Your task to perform on an android device: Open the stopwatch Image 0: 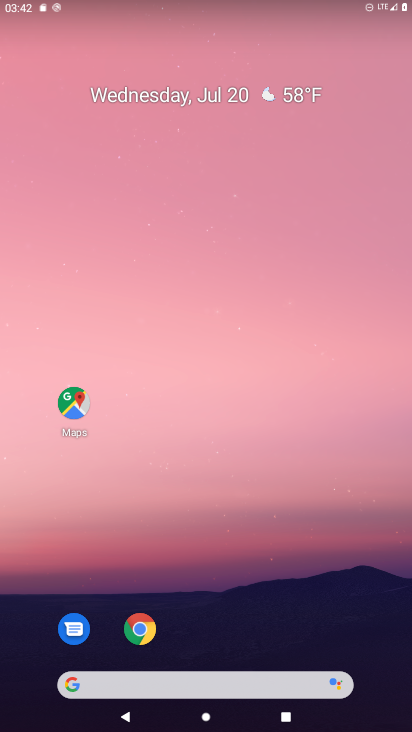
Step 0: drag from (220, 645) to (286, 42)
Your task to perform on an android device: Open the stopwatch Image 1: 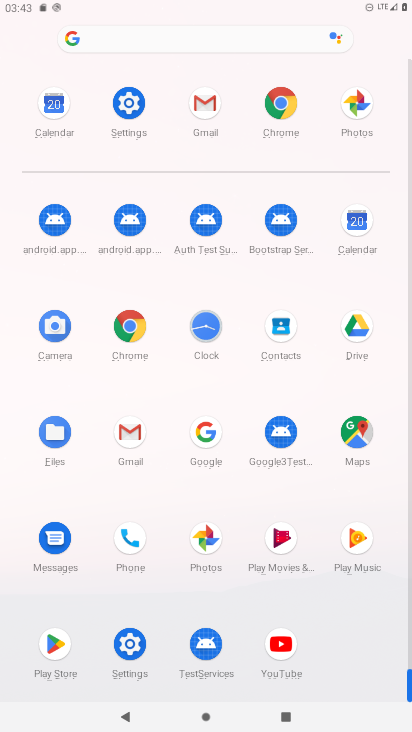
Step 1: click (199, 311)
Your task to perform on an android device: Open the stopwatch Image 2: 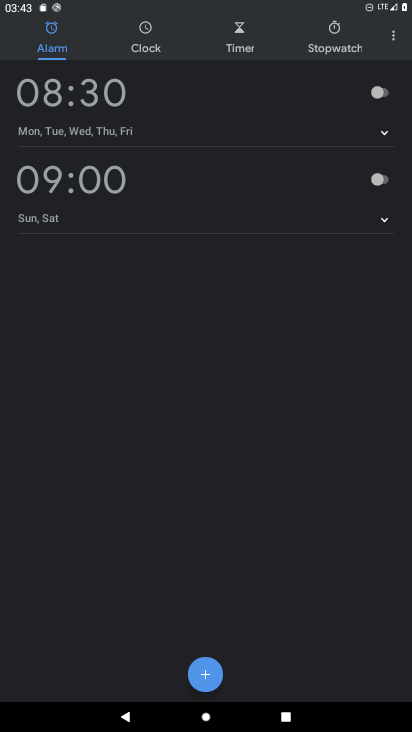
Step 2: click (300, 42)
Your task to perform on an android device: Open the stopwatch Image 3: 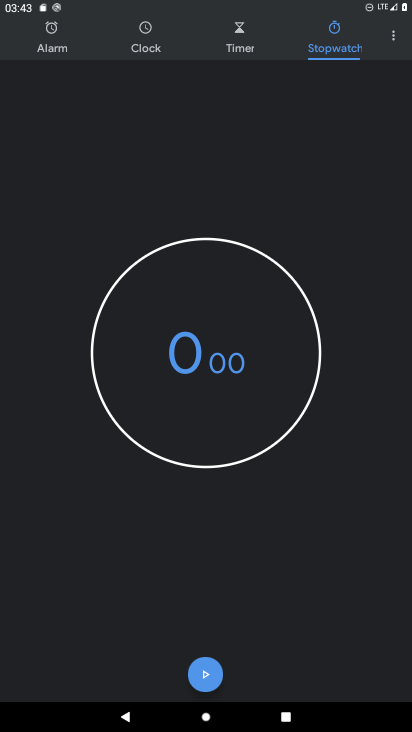
Step 3: task complete